Your task to perform on an android device: turn on translation in the chrome app Image 0: 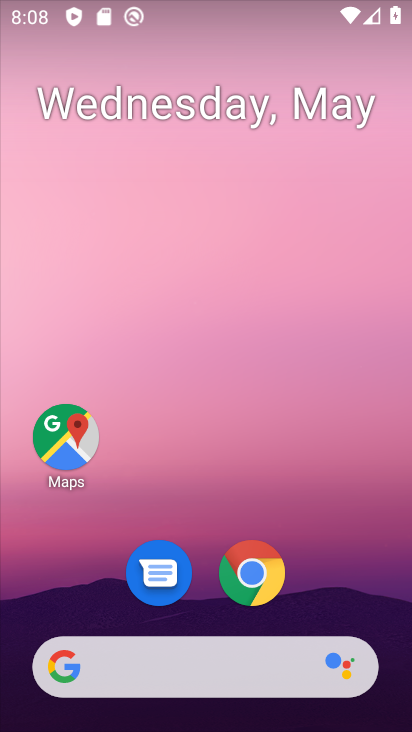
Step 0: click (285, 568)
Your task to perform on an android device: turn on translation in the chrome app Image 1: 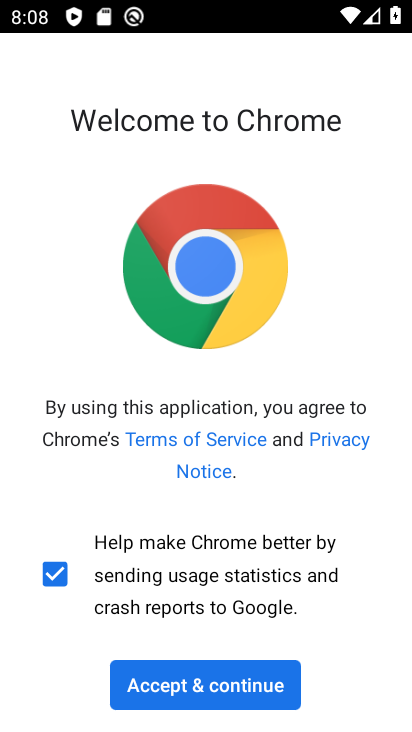
Step 1: click (246, 684)
Your task to perform on an android device: turn on translation in the chrome app Image 2: 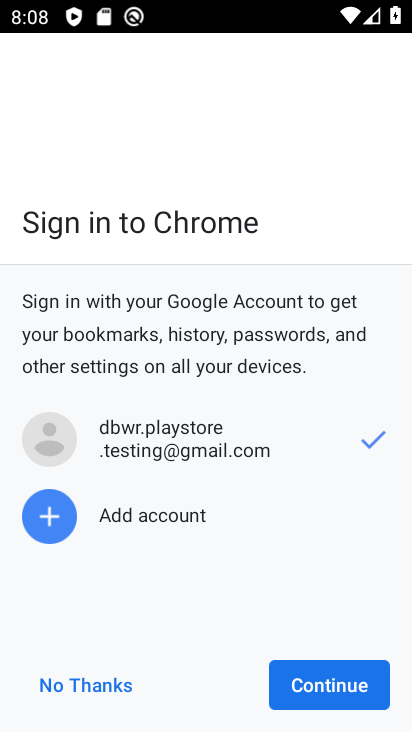
Step 2: click (311, 679)
Your task to perform on an android device: turn on translation in the chrome app Image 3: 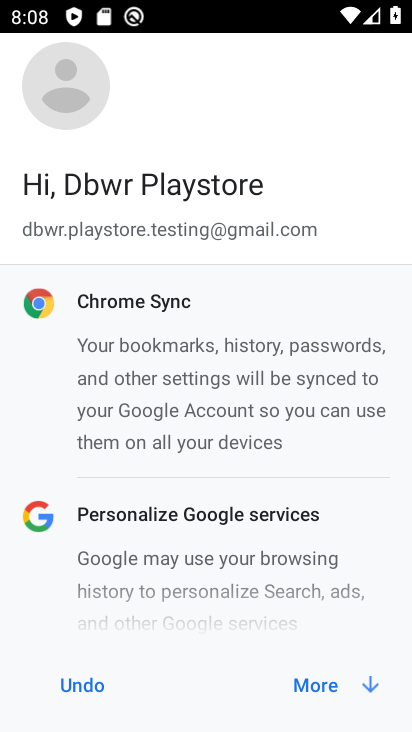
Step 3: click (347, 686)
Your task to perform on an android device: turn on translation in the chrome app Image 4: 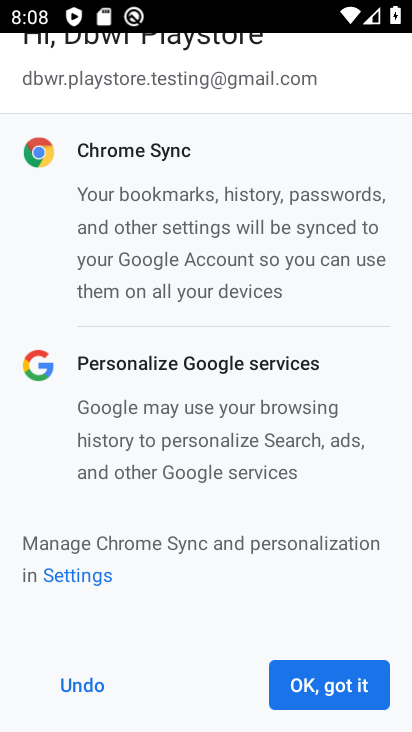
Step 4: click (345, 683)
Your task to perform on an android device: turn on translation in the chrome app Image 5: 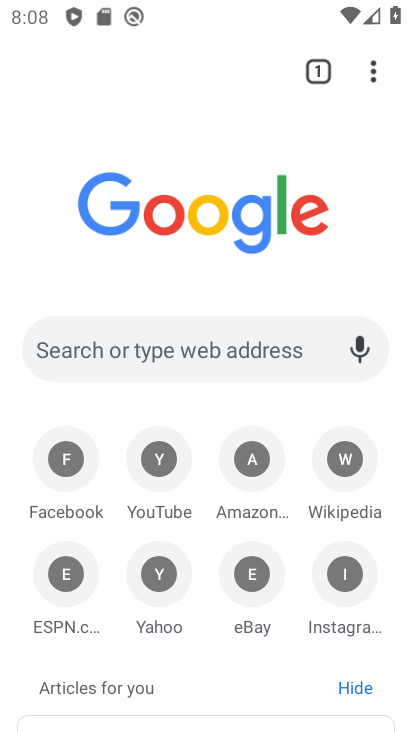
Step 5: click (379, 61)
Your task to perform on an android device: turn on translation in the chrome app Image 6: 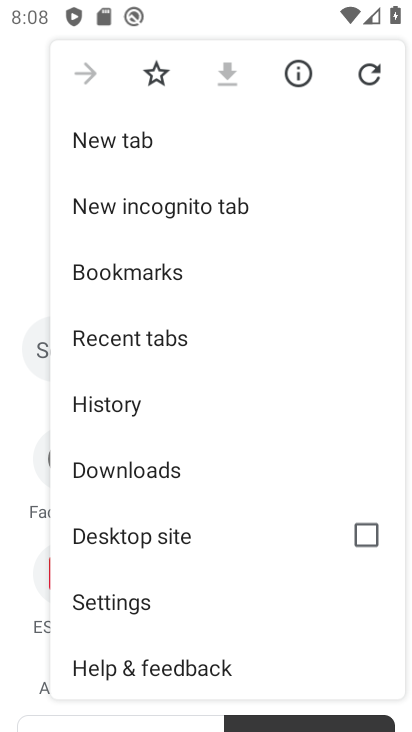
Step 6: click (256, 609)
Your task to perform on an android device: turn on translation in the chrome app Image 7: 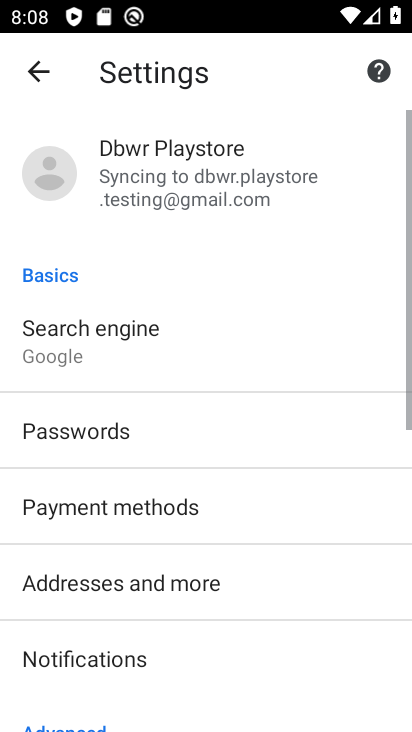
Step 7: drag from (257, 608) to (277, 230)
Your task to perform on an android device: turn on translation in the chrome app Image 8: 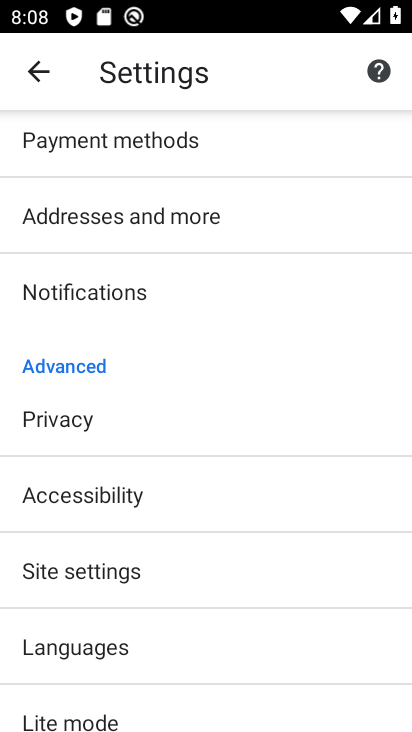
Step 8: click (184, 631)
Your task to perform on an android device: turn on translation in the chrome app Image 9: 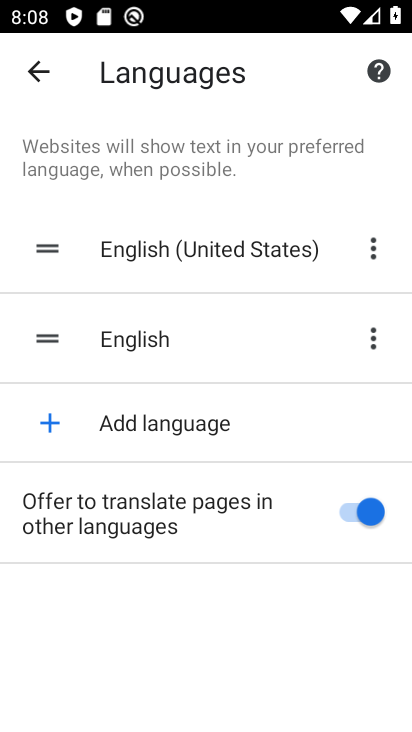
Step 9: task complete